Your task to perform on an android device: toggle location history Image 0: 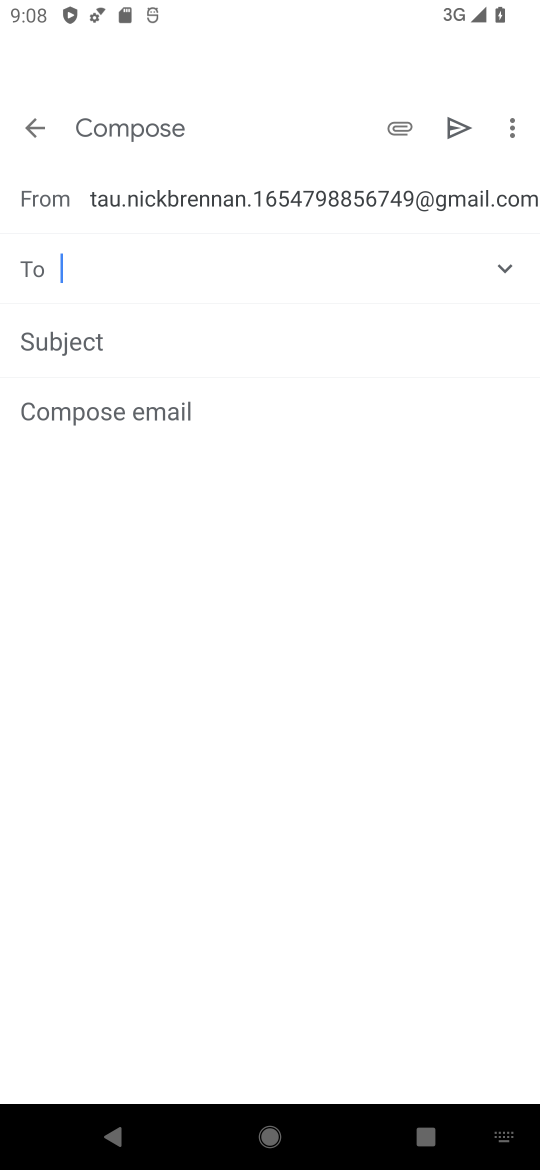
Step 0: press home button
Your task to perform on an android device: toggle location history Image 1: 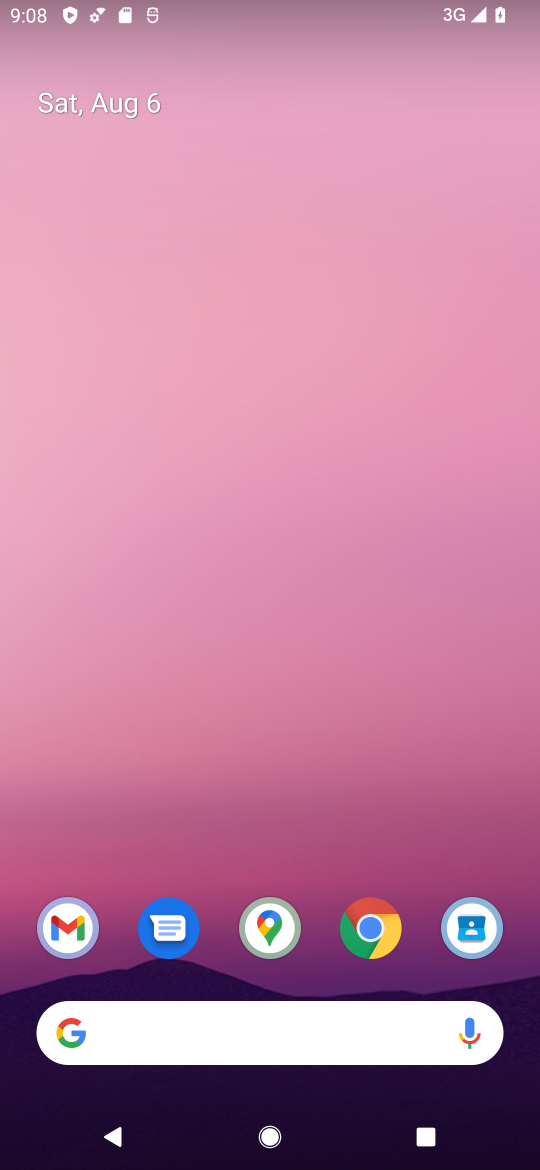
Step 1: drag from (264, 824) to (253, 169)
Your task to perform on an android device: toggle location history Image 2: 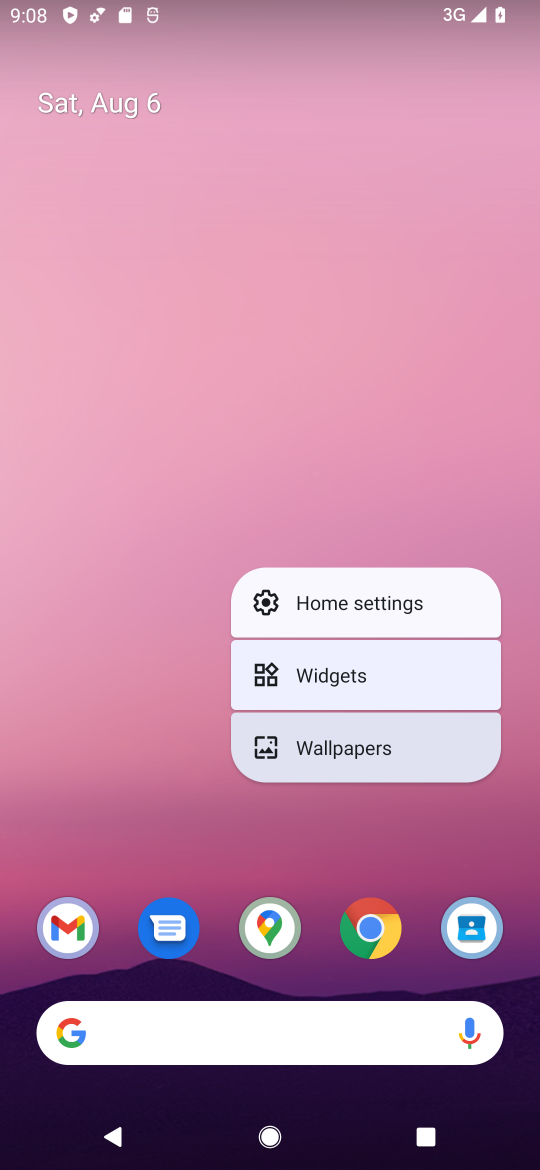
Step 2: click (166, 683)
Your task to perform on an android device: toggle location history Image 3: 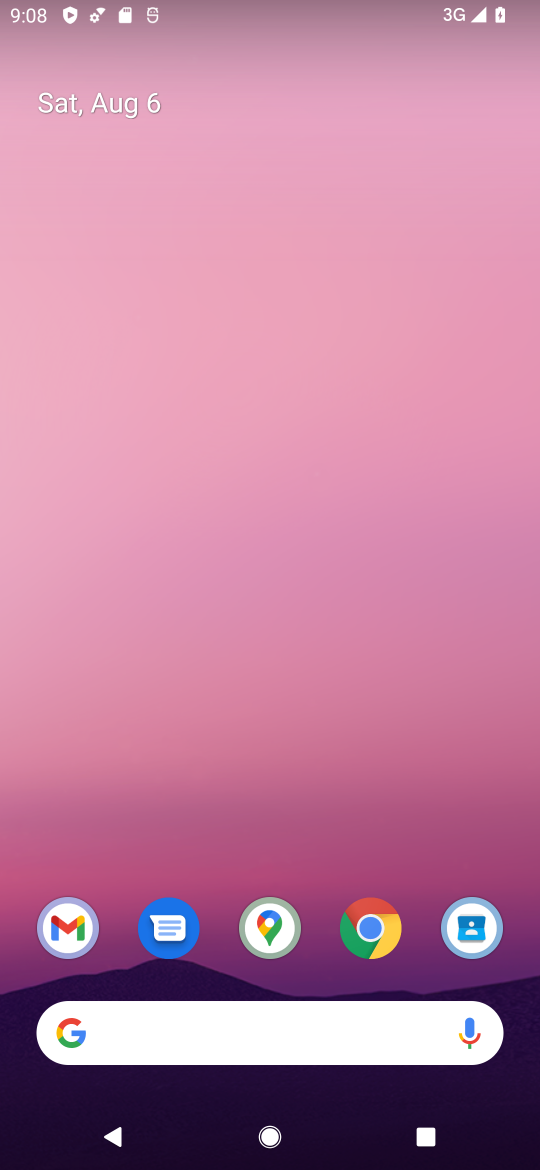
Step 3: drag from (325, 773) to (204, 195)
Your task to perform on an android device: toggle location history Image 4: 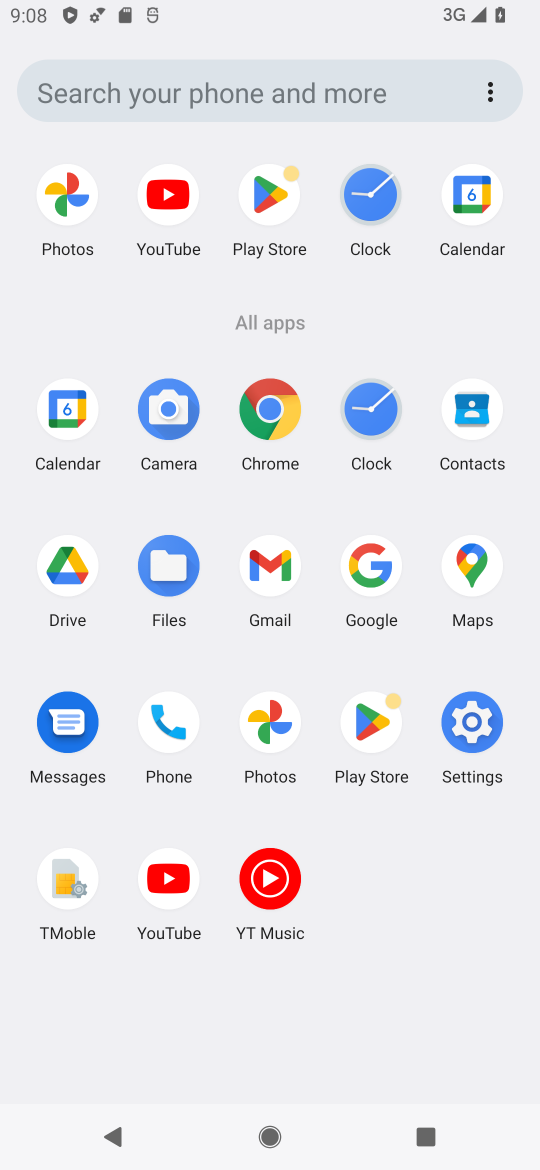
Step 4: click (475, 712)
Your task to perform on an android device: toggle location history Image 5: 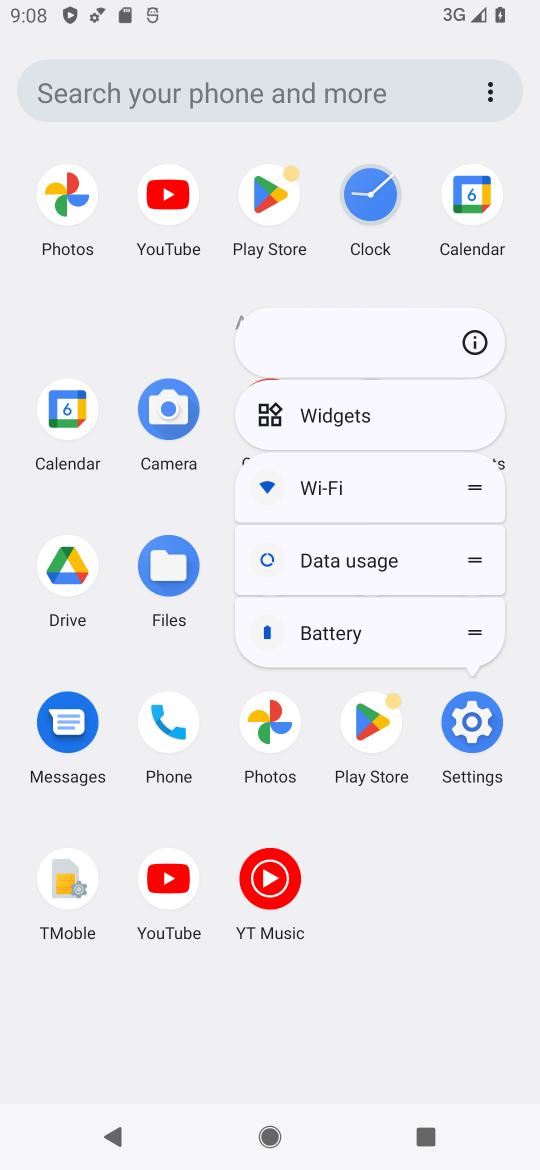
Step 5: click (475, 715)
Your task to perform on an android device: toggle location history Image 6: 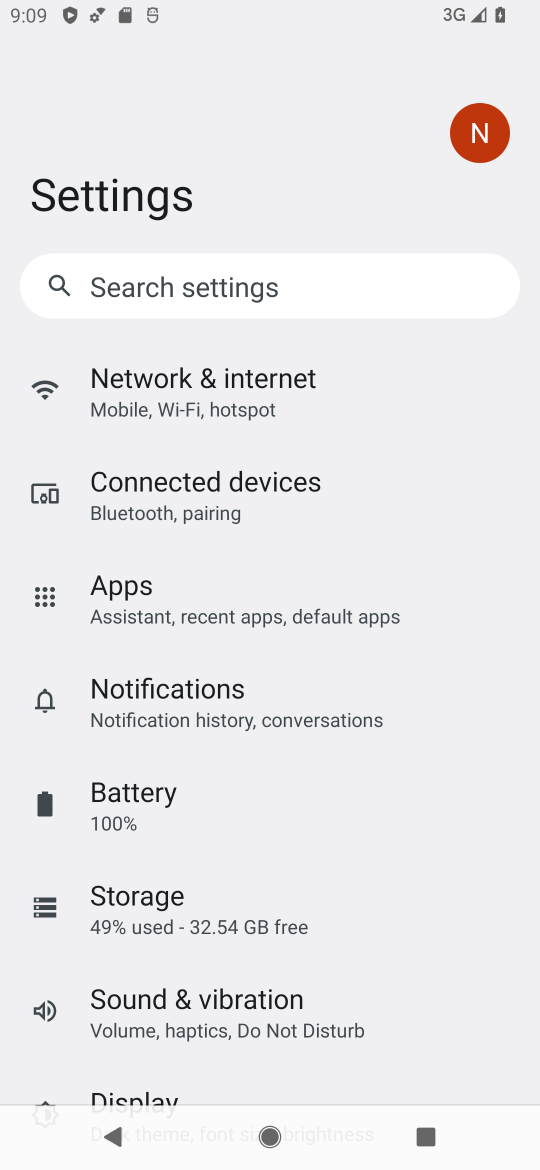
Step 6: drag from (326, 921) to (360, 512)
Your task to perform on an android device: toggle location history Image 7: 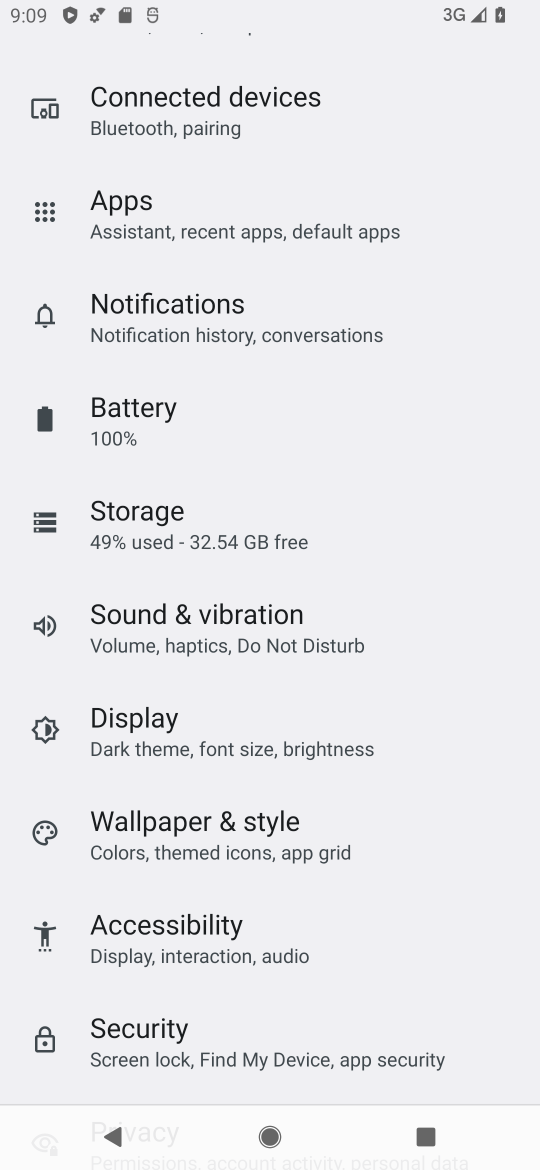
Step 7: drag from (359, 967) to (330, 523)
Your task to perform on an android device: toggle location history Image 8: 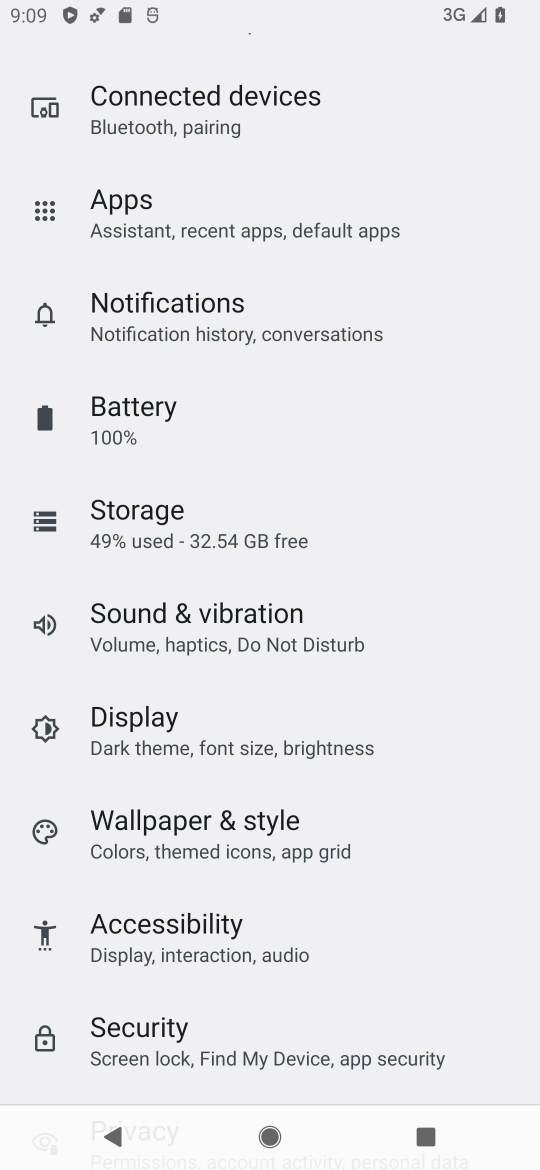
Step 8: drag from (387, 931) to (346, 366)
Your task to perform on an android device: toggle location history Image 9: 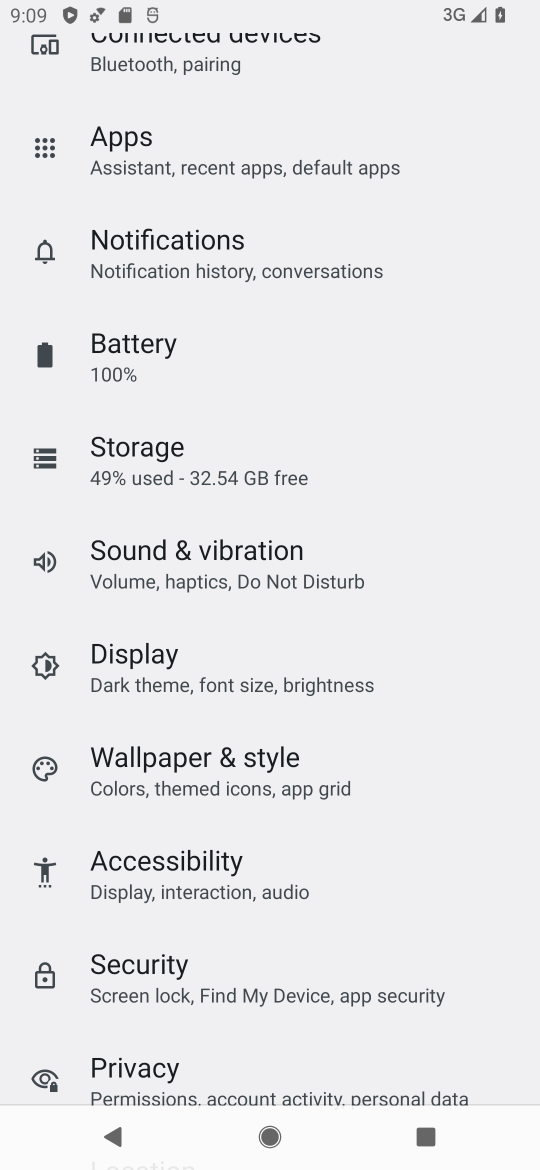
Step 9: drag from (325, 936) to (276, 457)
Your task to perform on an android device: toggle location history Image 10: 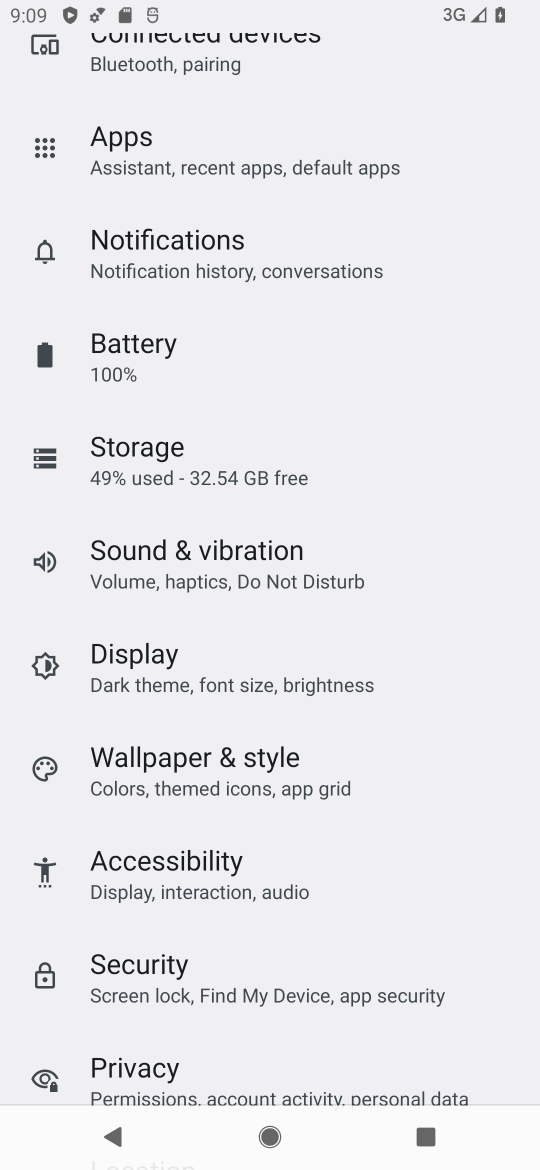
Step 10: drag from (259, 1030) to (259, 511)
Your task to perform on an android device: toggle location history Image 11: 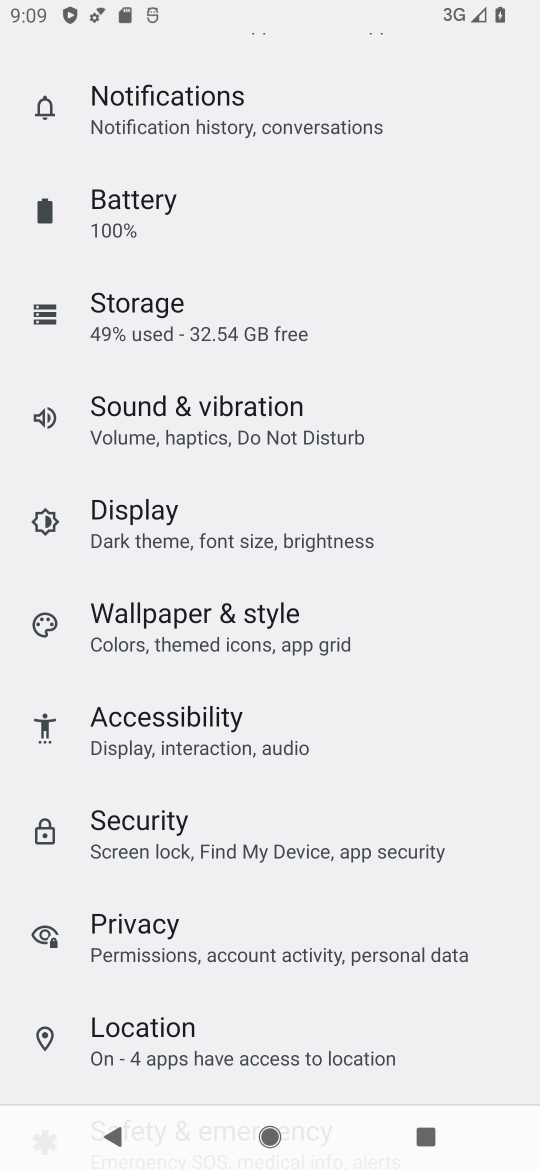
Step 11: click (138, 1018)
Your task to perform on an android device: toggle location history Image 12: 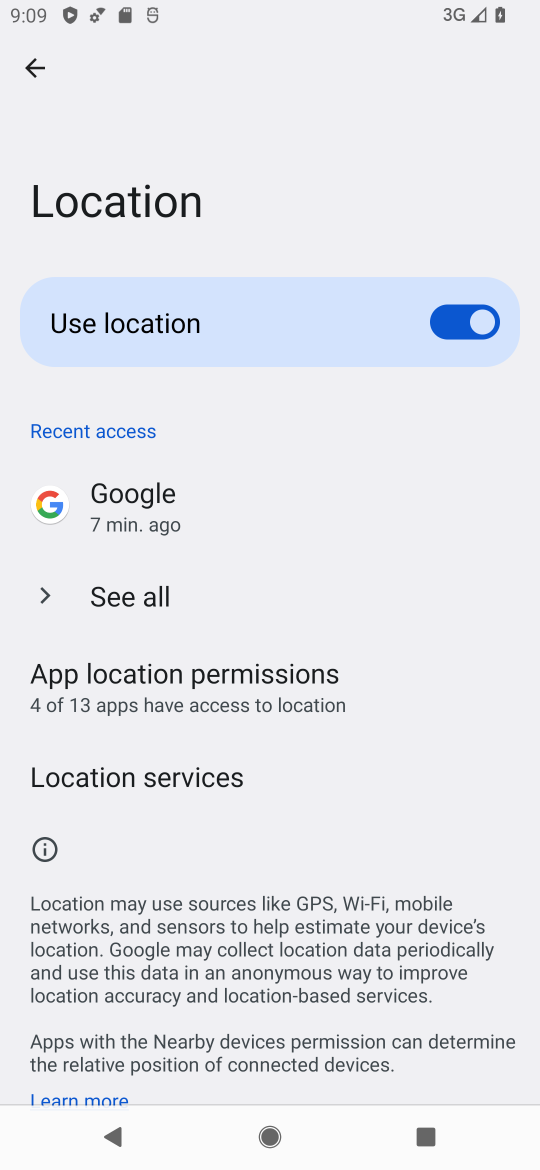
Step 12: click (130, 782)
Your task to perform on an android device: toggle location history Image 13: 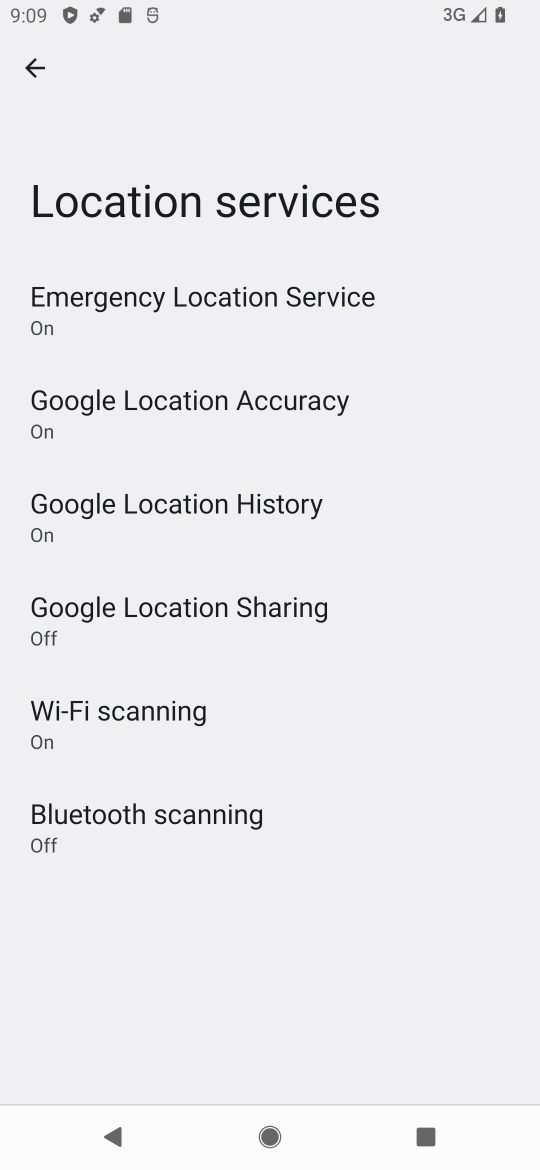
Step 13: click (208, 497)
Your task to perform on an android device: toggle location history Image 14: 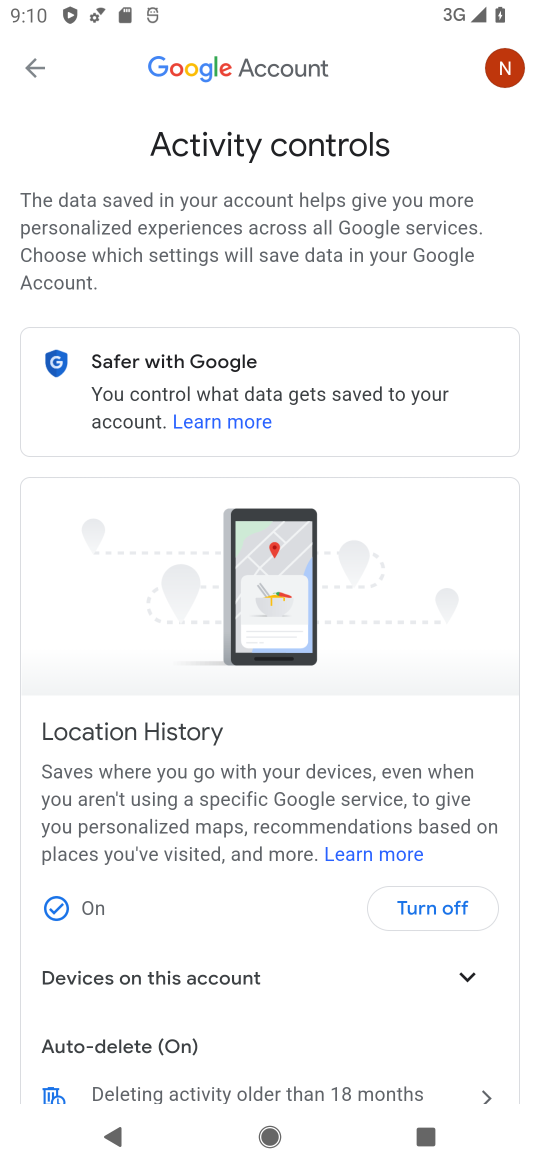
Step 14: click (440, 907)
Your task to perform on an android device: toggle location history Image 15: 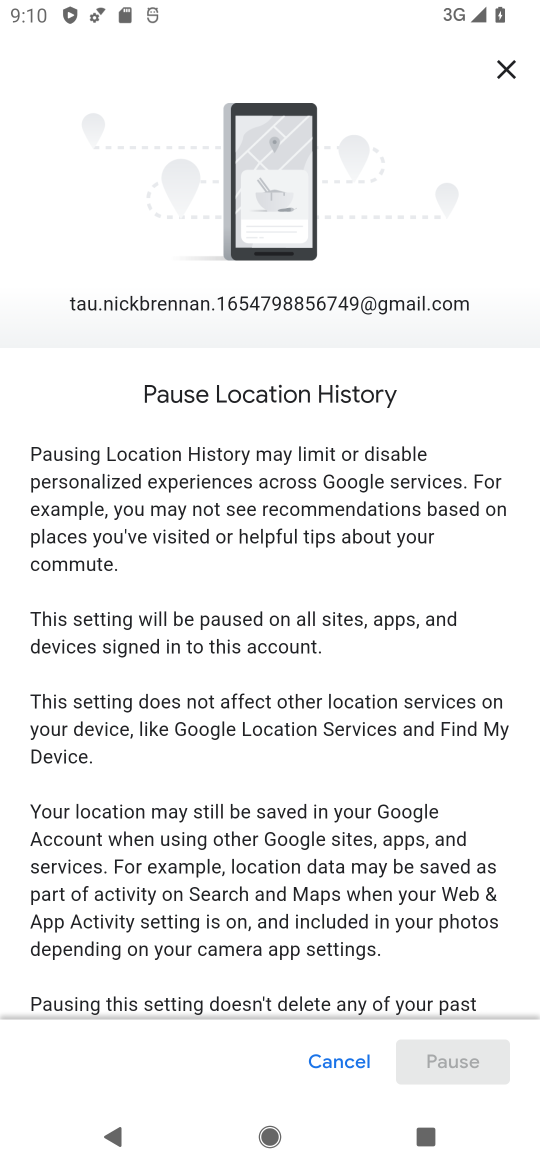
Step 15: drag from (369, 873) to (359, 325)
Your task to perform on an android device: toggle location history Image 16: 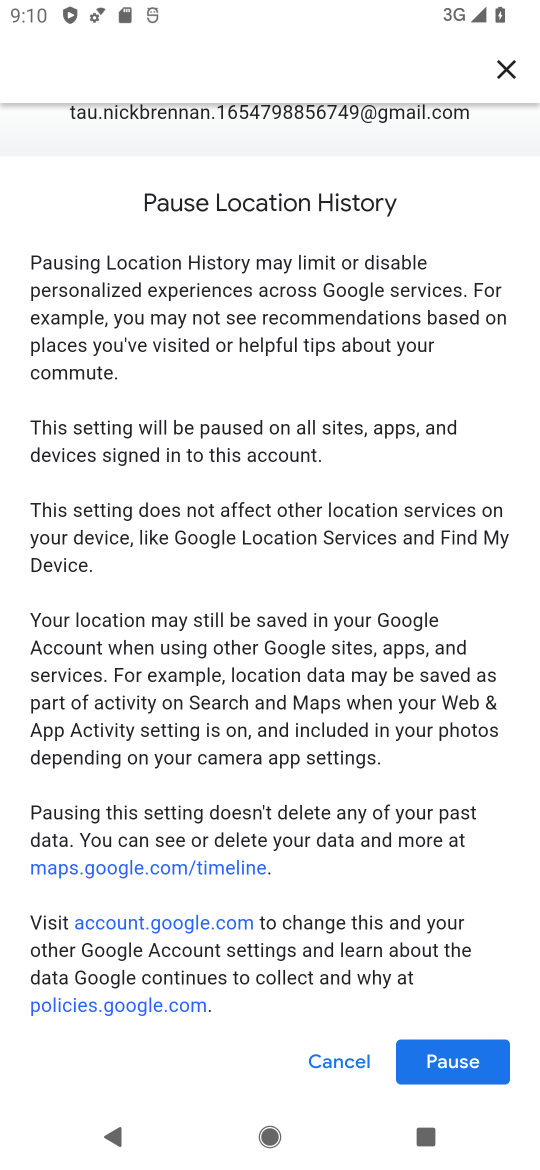
Step 16: click (462, 1071)
Your task to perform on an android device: toggle location history Image 17: 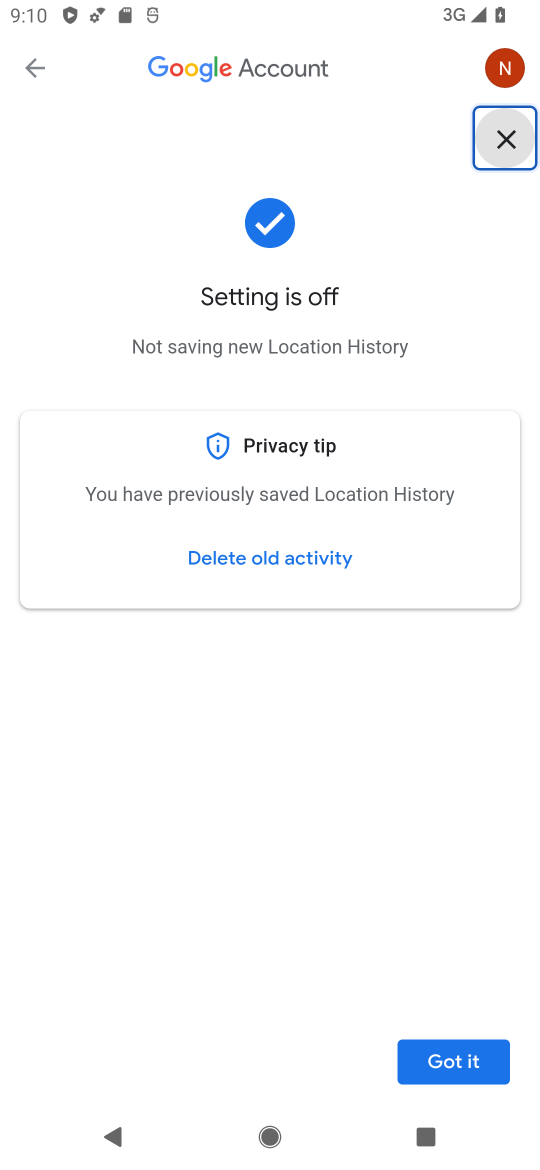
Step 17: click (451, 1060)
Your task to perform on an android device: toggle location history Image 18: 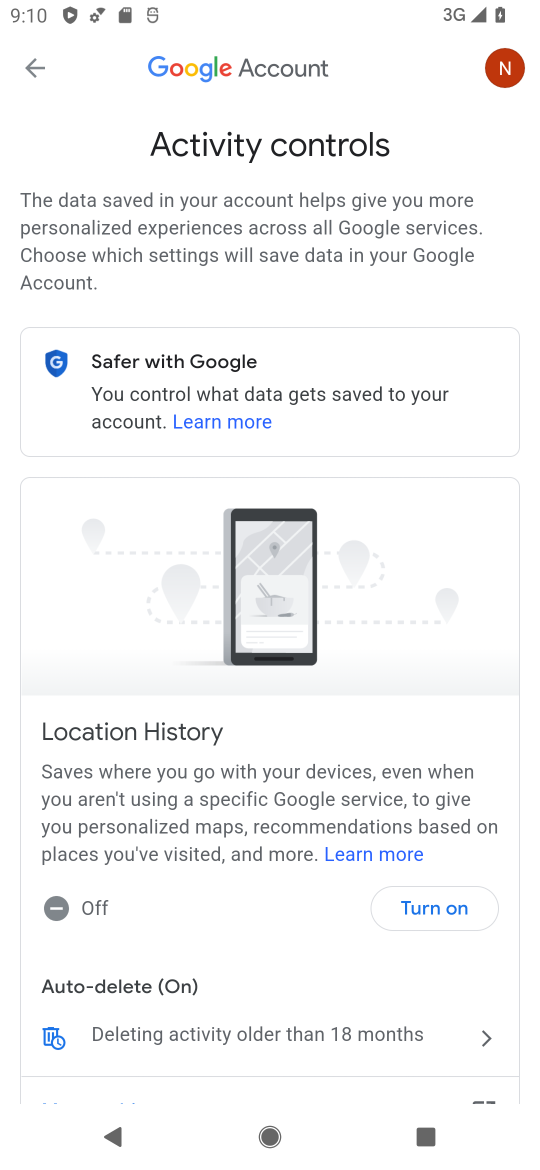
Step 18: task complete